Your task to perform on an android device: Go to calendar. Show me events next week Image 0: 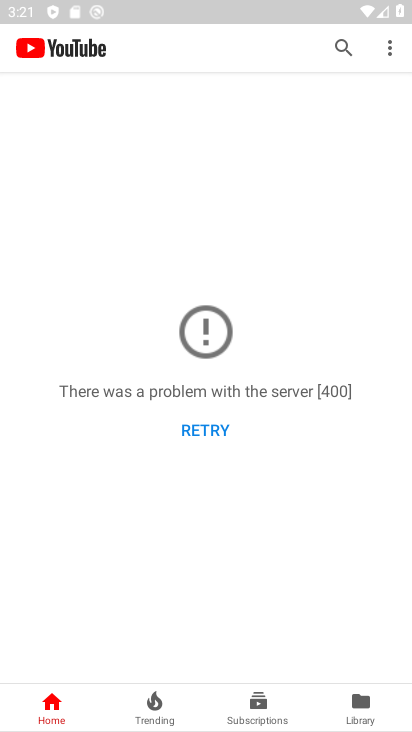
Step 0: press home button
Your task to perform on an android device: Go to calendar. Show me events next week Image 1: 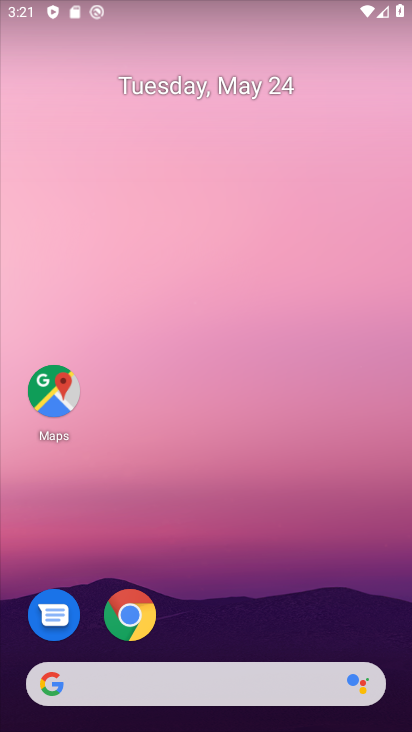
Step 1: drag from (206, 580) to (206, 90)
Your task to perform on an android device: Go to calendar. Show me events next week Image 2: 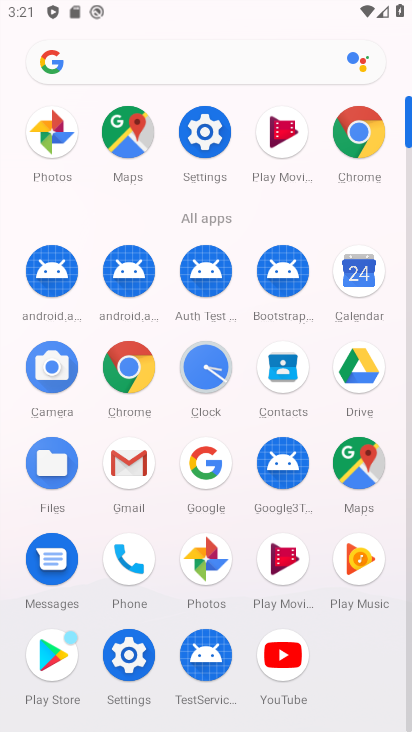
Step 2: click (363, 279)
Your task to perform on an android device: Go to calendar. Show me events next week Image 3: 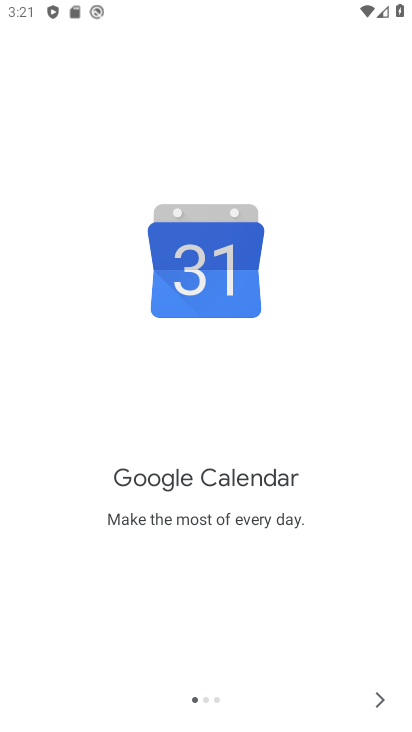
Step 3: click (378, 695)
Your task to perform on an android device: Go to calendar. Show me events next week Image 4: 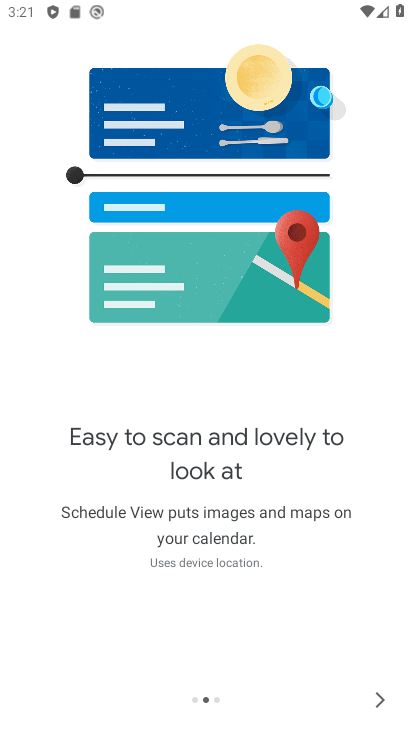
Step 4: click (377, 694)
Your task to perform on an android device: Go to calendar. Show me events next week Image 5: 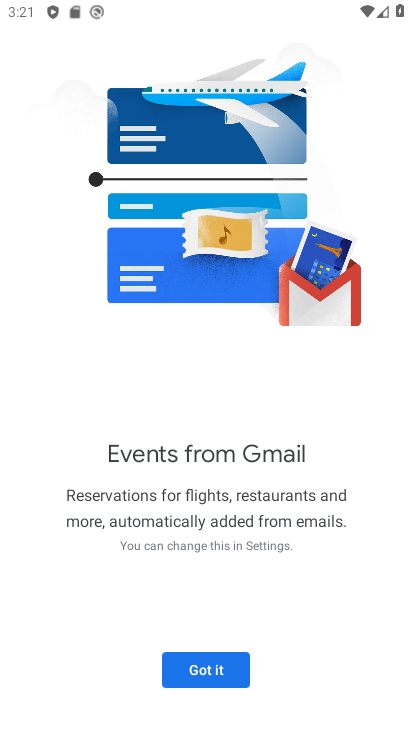
Step 5: click (204, 669)
Your task to perform on an android device: Go to calendar. Show me events next week Image 6: 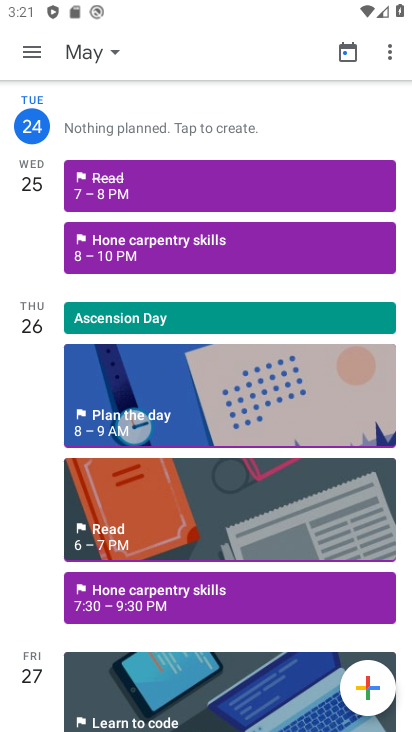
Step 6: click (108, 48)
Your task to perform on an android device: Go to calendar. Show me events next week Image 7: 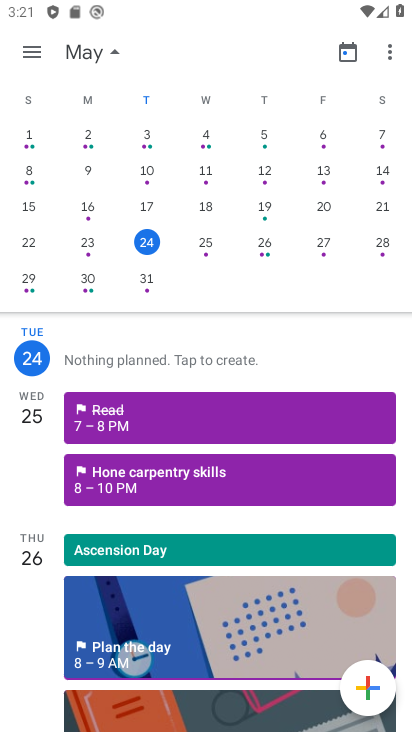
Step 7: drag from (361, 238) to (0, 205)
Your task to perform on an android device: Go to calendar. Show me events next week Image 8: 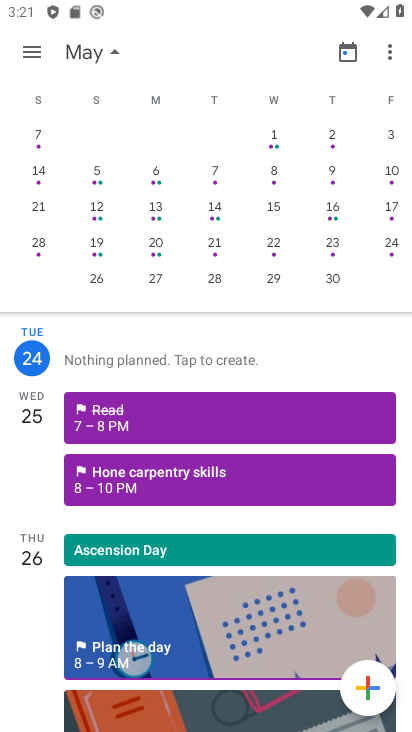
Step 8: drag from (19, 218) to (398, 222)
Your task to perform on an android device: Go to calendar. Show me events next week Image 9: 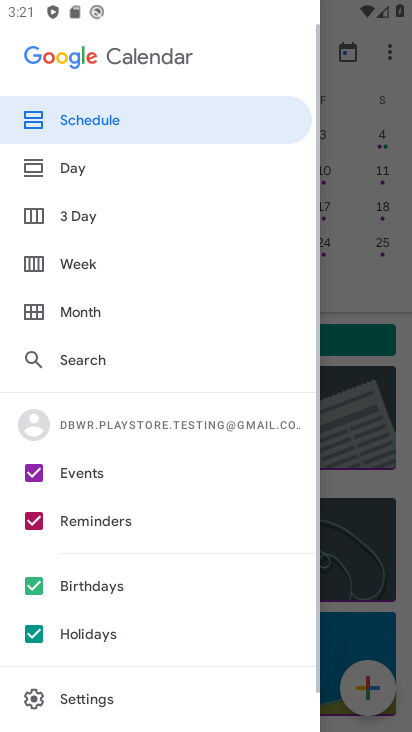
Step 9: click (360, 188)
Your task to perform on an android device: Go to calendar. Show me events next week Image 10: 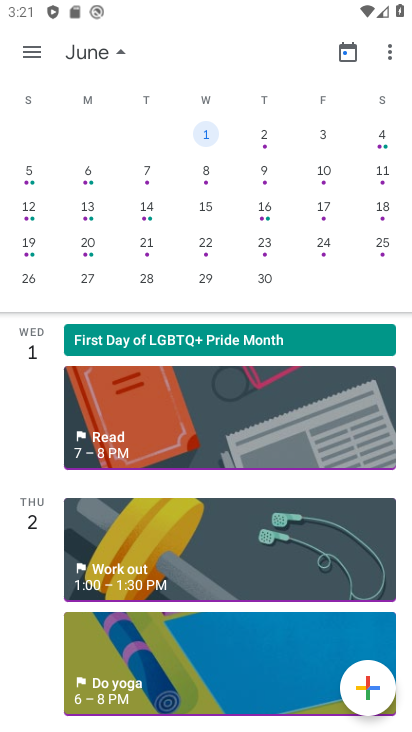
Step 10: drag from (74, 203) to (390, 209)
Your task to perform on an android device: Go to calendar. Show me events next week Image 11: 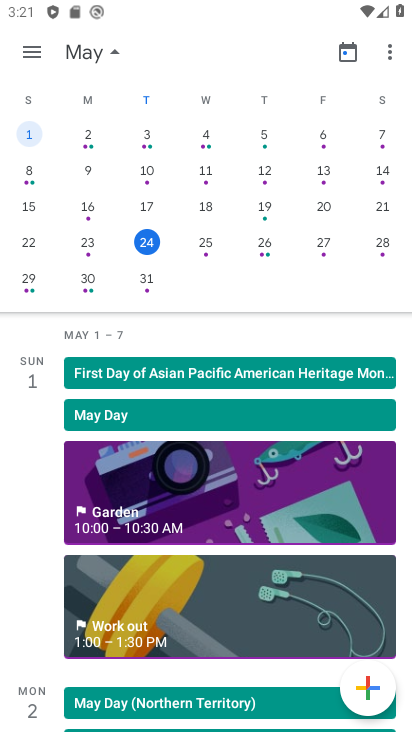
Step 11: click (85, 277)
Your task to perform on an android device: Go to calendar. Show me events next week Image 12: 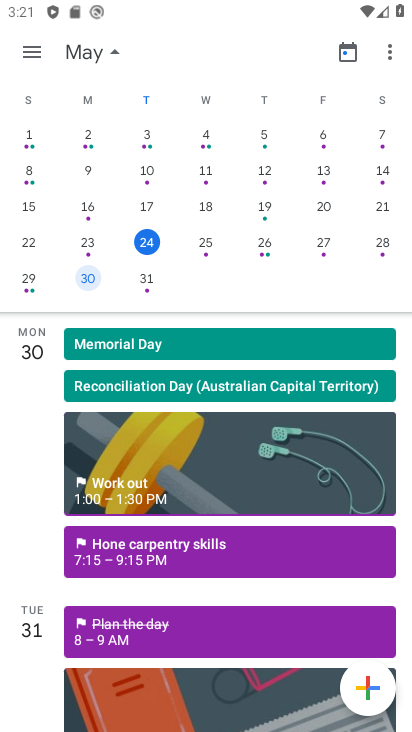
Step 12: click (26, 45)
Your task to perform on an android device: Go to calendar. Show me events next week Image 13: 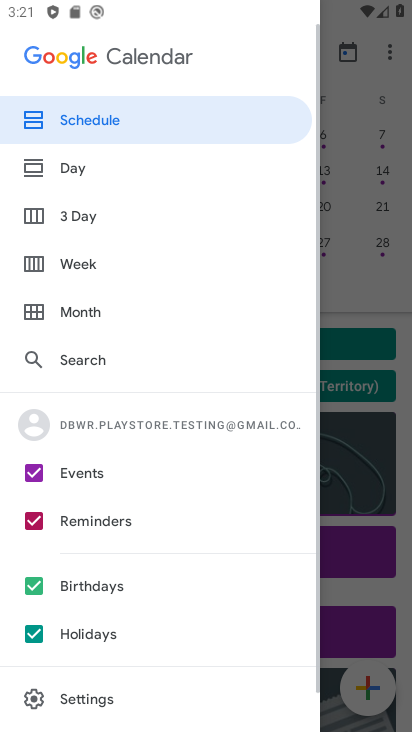
Step 13: click (77, 262)
Your task to perform on an android device: Go to calendar. Show me events next week Image 14: 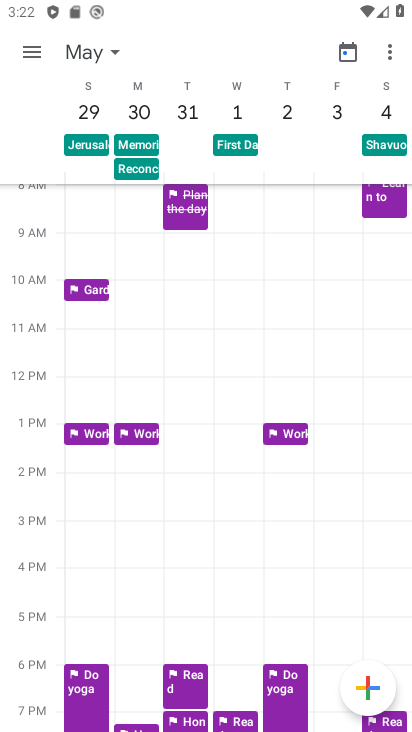
Step 14: task complete